Your task to perform on an android device: turn off javascript in the chrome app Image 0: 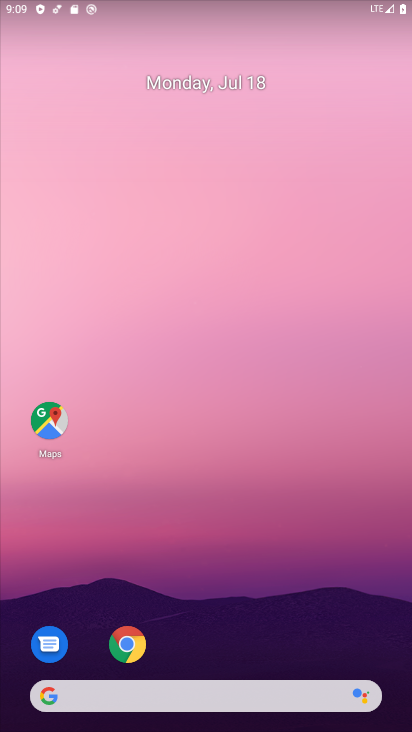
Step 0: drag from (337, 636) to (353, 178)
Your task to perform on an android device: turn off javascript in the chrome app Image 1: 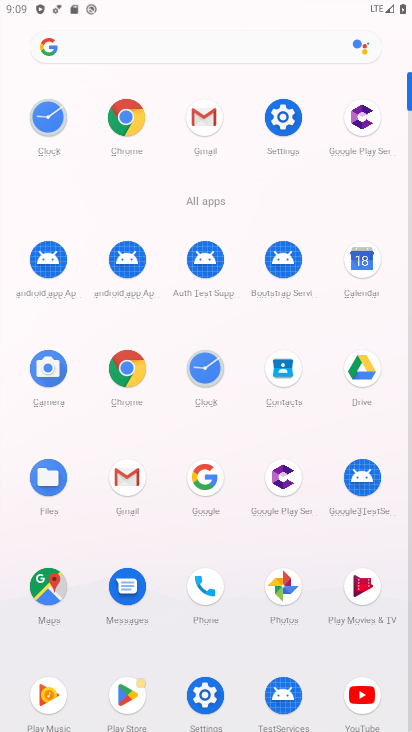
Step 1: click (122, 370)
Your task to perform on an android device: turn off javascript in the chrome app Image 2: 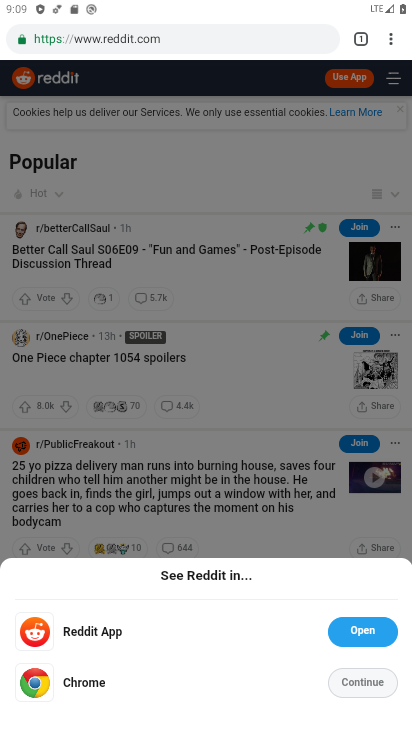
Step 2: click (391, 34)
Your task to perform on an android device: turn off javascript in the chrome app Image 3: 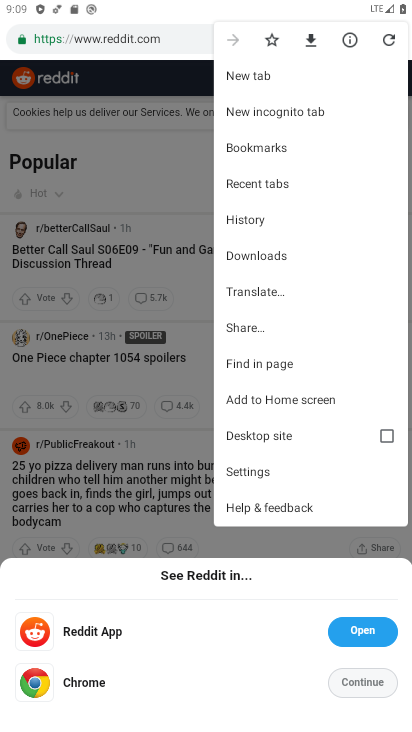
Step 3: click (257, 467)
Your task to perform on an android device: turn off javascript in the chrome app Image 4: 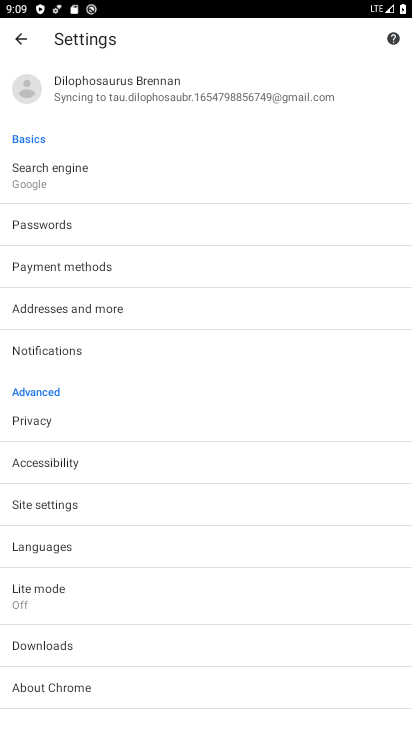
Step 4: click (248, 496)
Your task to perform on an android device: turn off javascript in the chrome app Image 5: 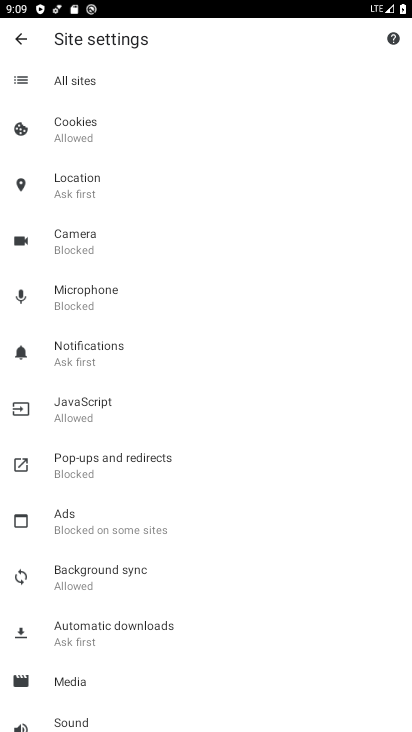
Step 5: click (168, 409)
Your task to perform on an android device: turn off javascript in the chrome app Image 6: 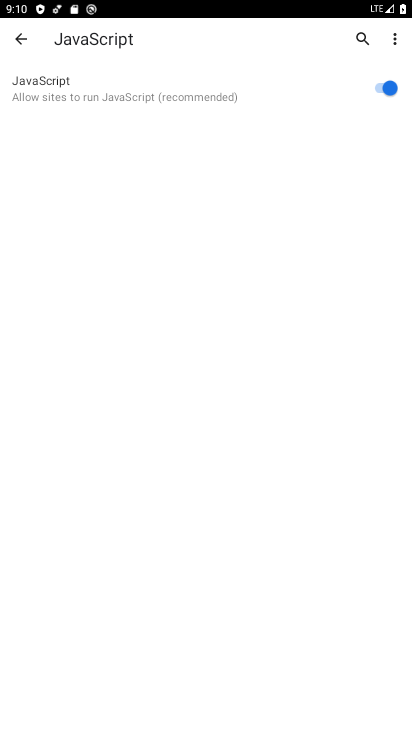
Step 6: click (388, 92)
Your task to perform on an android device: turn off javascript in the chrome app Image 7: 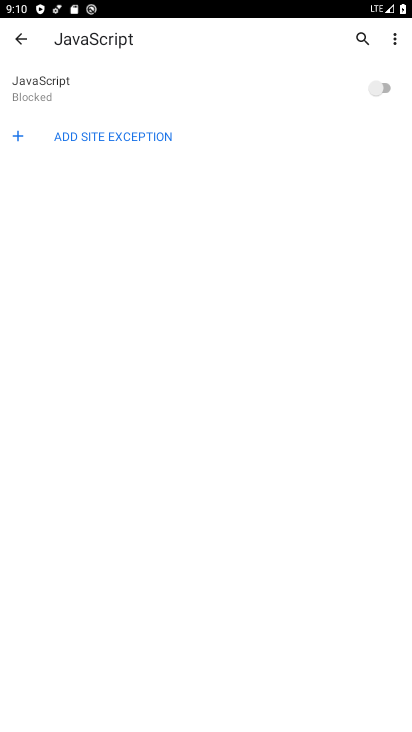
Step 7: task complete